Your task to perform on an android device: toggle location history Image 0: 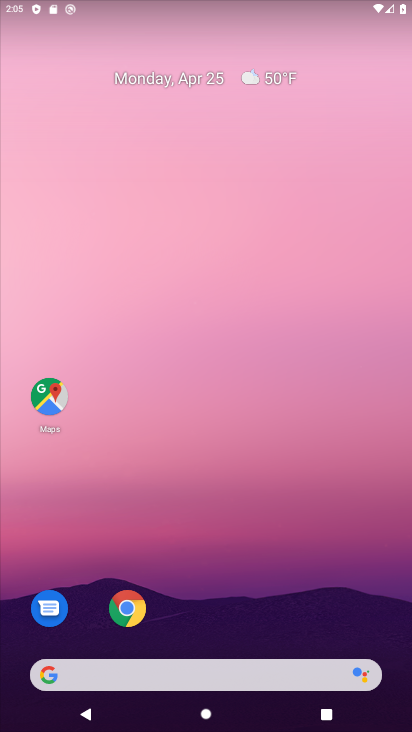
Step 0: drag from (216, 592) to (254, 265)
Your task to perform on an android device: toggle location history Image 1: 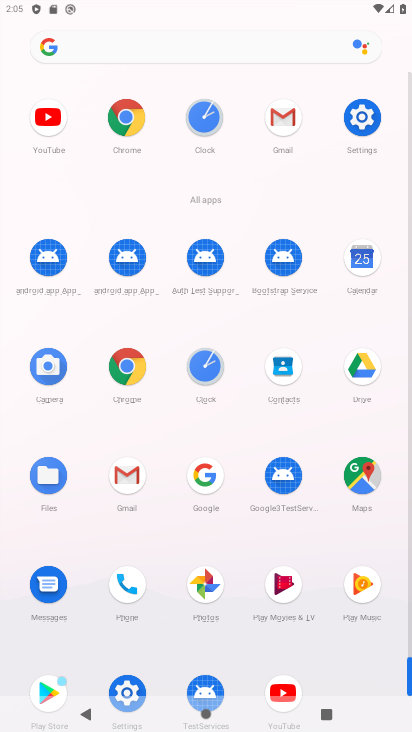
Step 1: click (353, 116)
Your task to perform on an android device: toggle location history Image 2: 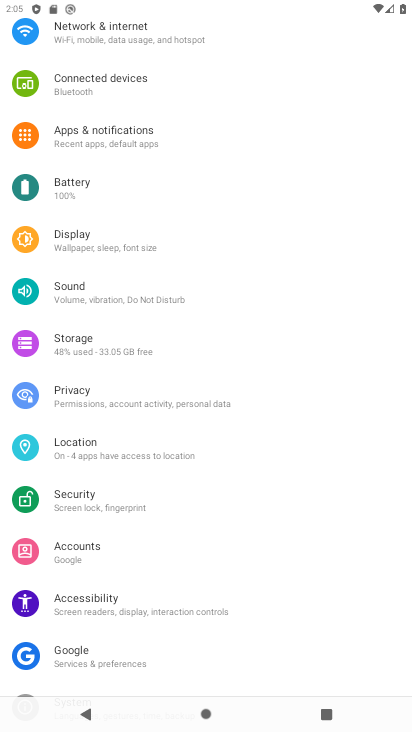
Step 2: click (114, 467)
Your task to perform on an android device: toggle location history Image 3: 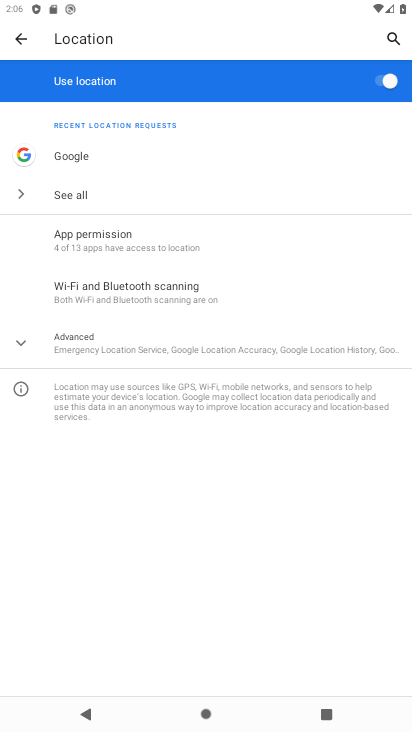
Step 3: click (137, 324)
Your task to perform on an android device: toggle location history Image 4: 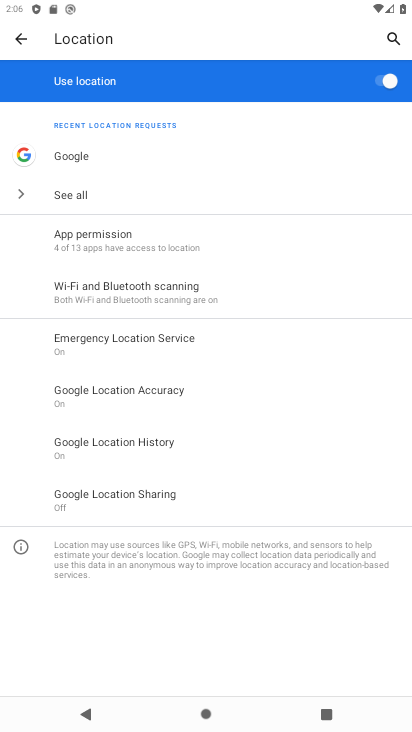
Step 4: click (187, 437)
Your task to perform on an android device: toggle location history Image 5: 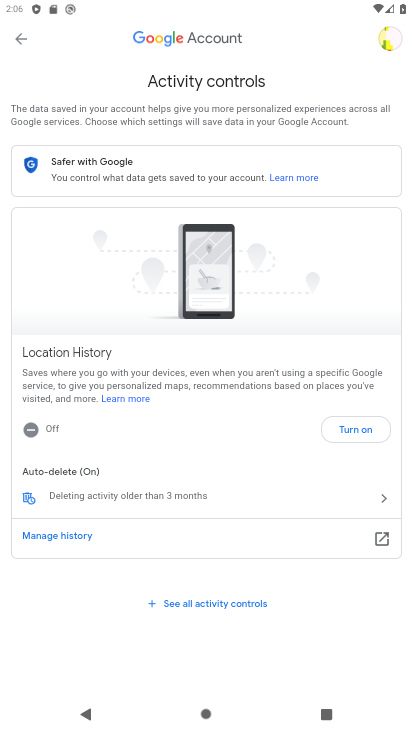
Step 5: click (359, 426)
Your task to perform on an android device: toggle location history Image 6: 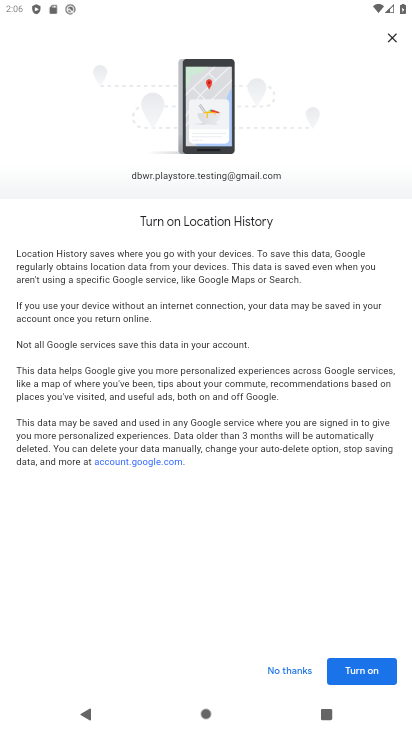
Step 6: click (373, 676)
Your task to perform on an android device: toggle location history Image 7: 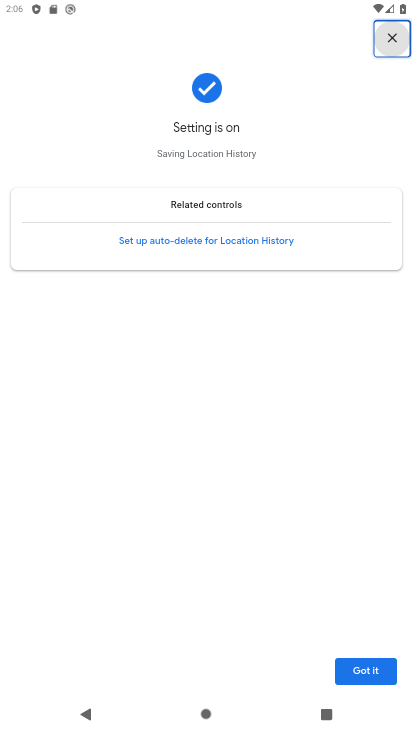
Step 7: click (344, 675)
Your task to perform on an android device: toggle location history Image 8: 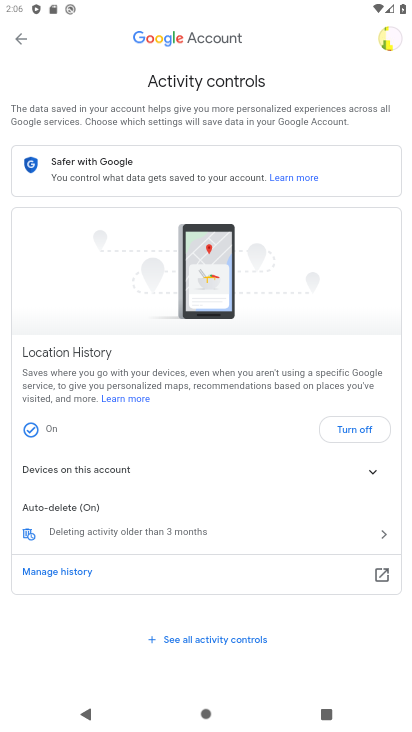
Step 8: task complete